Your task to perform on an android device: Open the calendar app, open the side menu, and click the "Day" option Image 0: 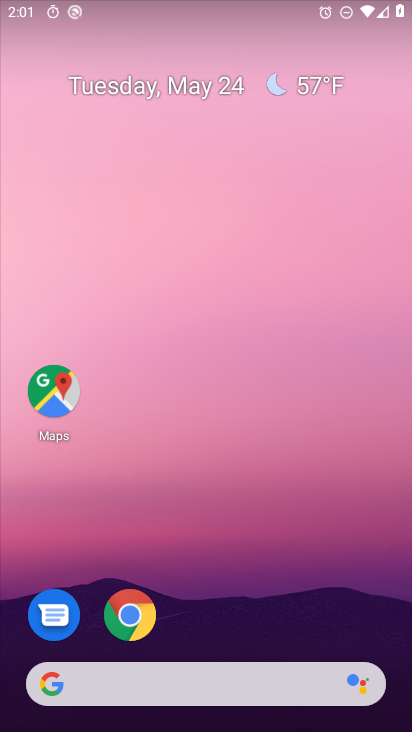
Step 0: drag from (188, 634) to (318, 77)
Your task to perform on an android device: Open the calendar app, open the side menu, and click the "Day" option Image 1: 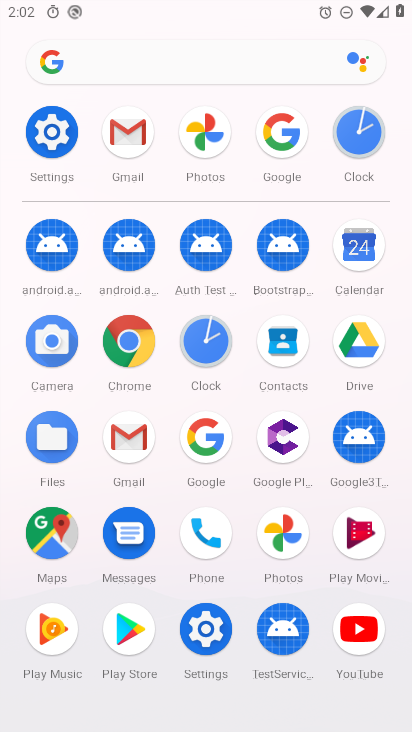
Step 1: click (349, 250)
Your task to perform on an android device: Open the calendar app, open the side menu, and click the "Day" option Image 2: 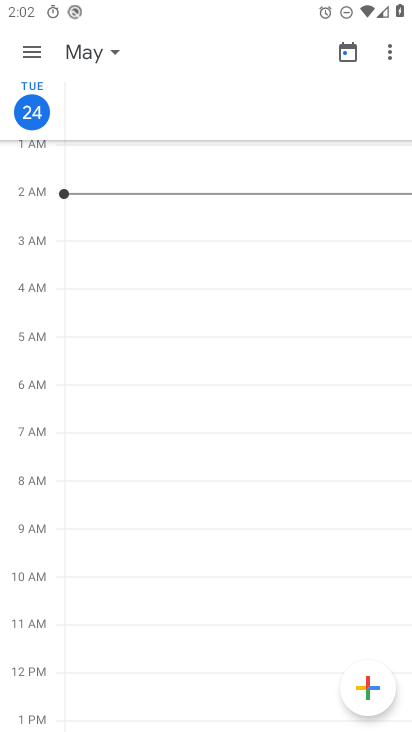
Step 2: click (40, 44)
Your task to perform on an android device: Open the calendar app, open the side menu, and click the "Day" option Image 3: 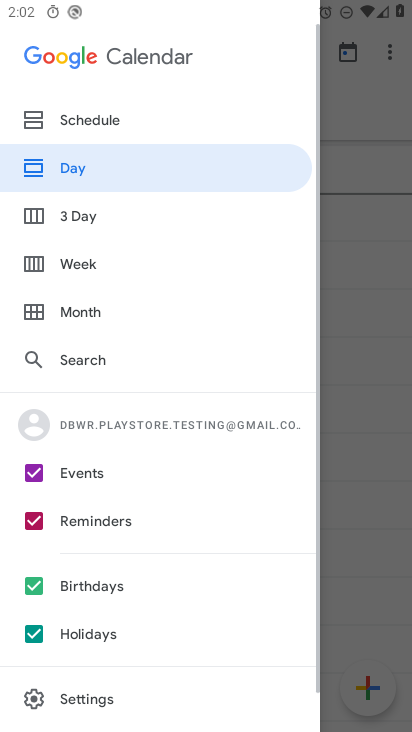
Step 3: task complete